Your task to perform on an android device: change timer sound Image 0: 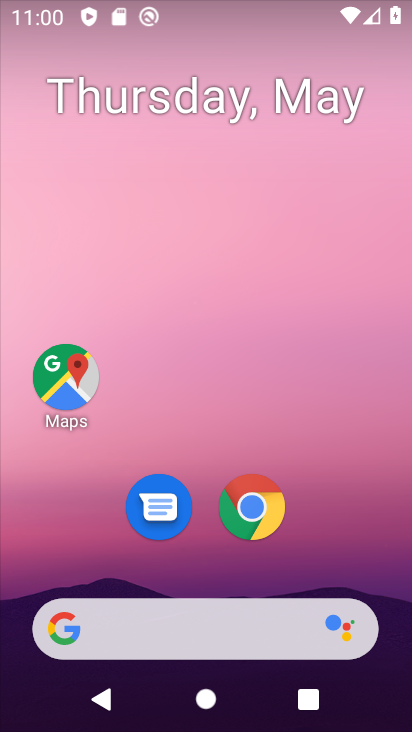
Step 0: drag from (222, 632) to (231, 4)
Your task to perform on an android device: change timer sound Image 1: 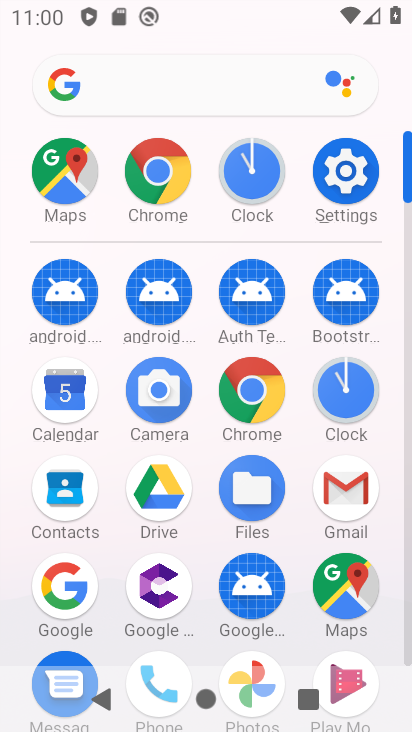
Step 1: click (353, 392)
Your task to perform on an android device: change timer sound Image 2: 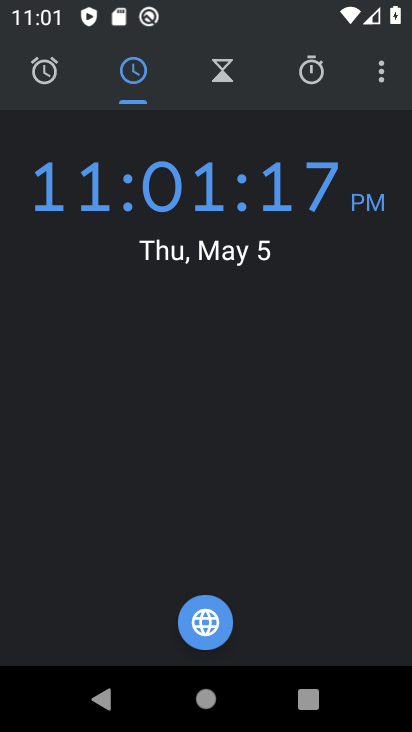
Step 2: click (381, 74)
Your task to perform on an android device: change timer sound Image 3: 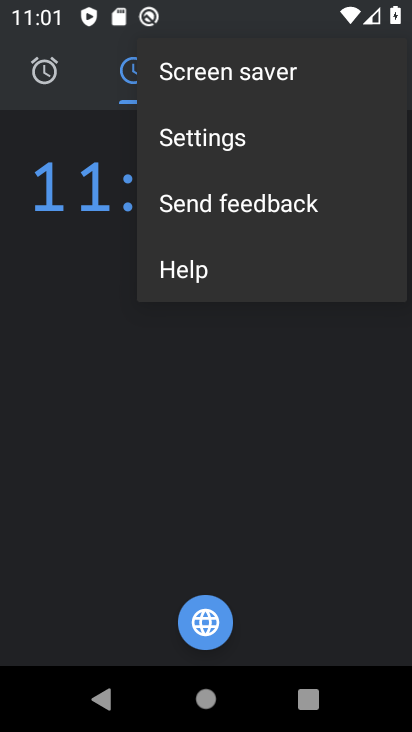
Step 3: click (228, 153)
Your task to perform on an android device: change timer sound Image 4: 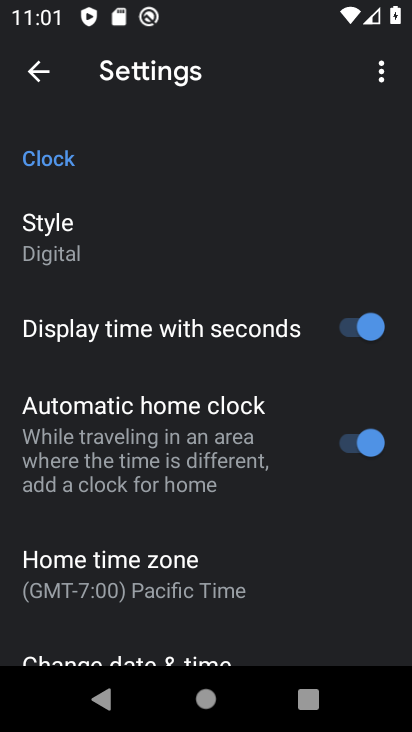
Step 4: drag from (200, 564) to (210, 27)
Your task to perform on an android device: change timer sound Image 5: 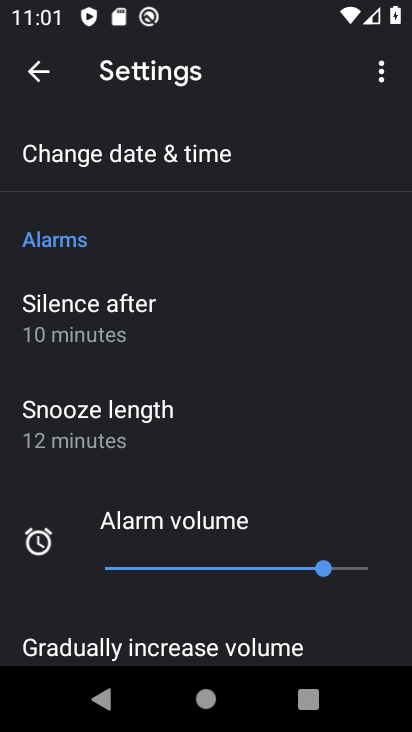
Step 5: drag from (130, 430) to (139, 64)
Your task to perform on an android device: change timer sound Image 6: 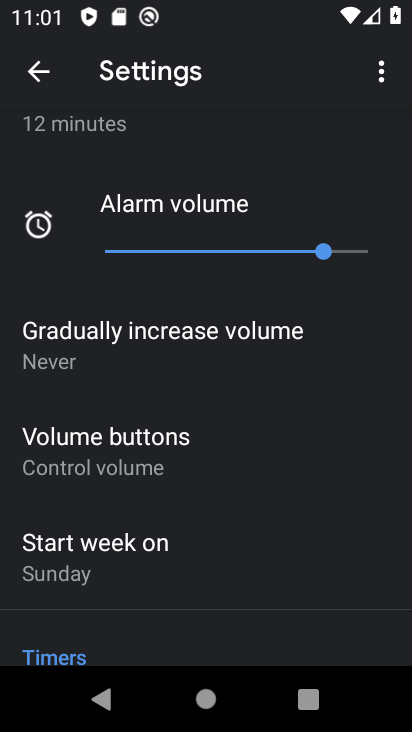
Step 6: drag from (215, 496) to (223, 258)
Your task to perform on an android device: change timer sound Image 7: 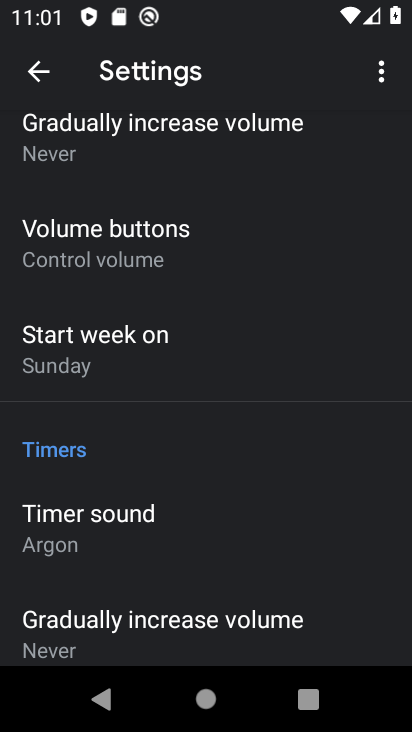
Step 7: click (190, 529)
Your task to perform on an android device: change timer sound Image 8: 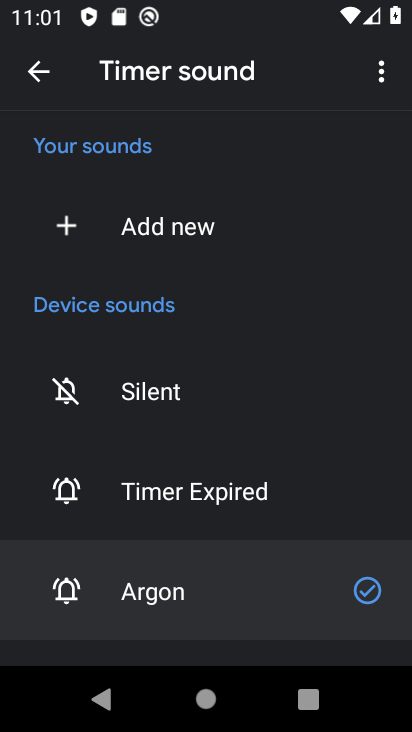
Step 8: click (177, 496)
Your task to perform on an android device: change timer sound Image 9: 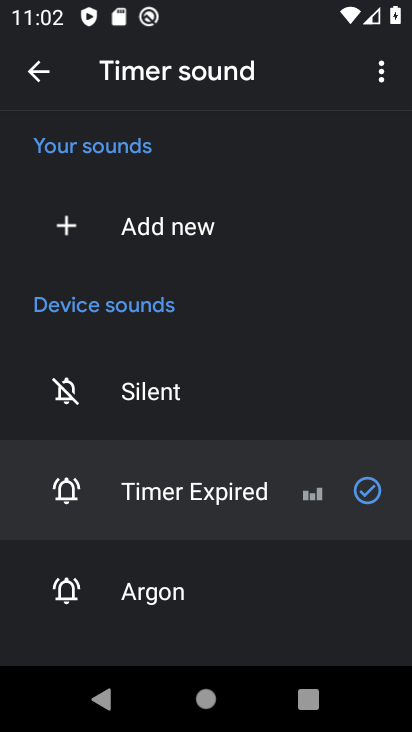
Step 9: task complete